Your task to perform on an android device: move an email to a new category in the gmail app Image 0: 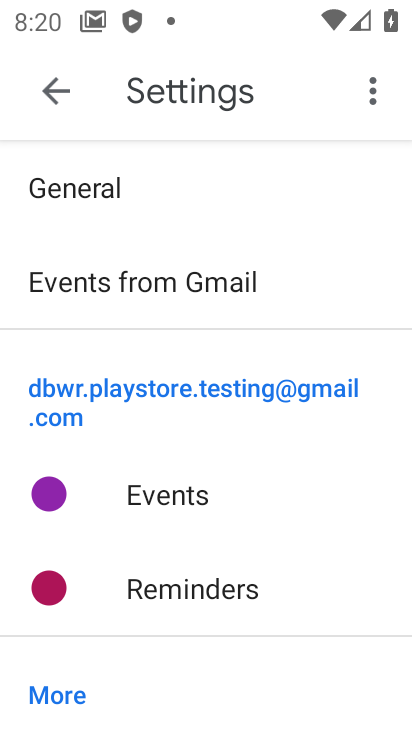
Step 0: press home button
Your task to perform on an android device: move an email to a new category in the gmail app Image 1: 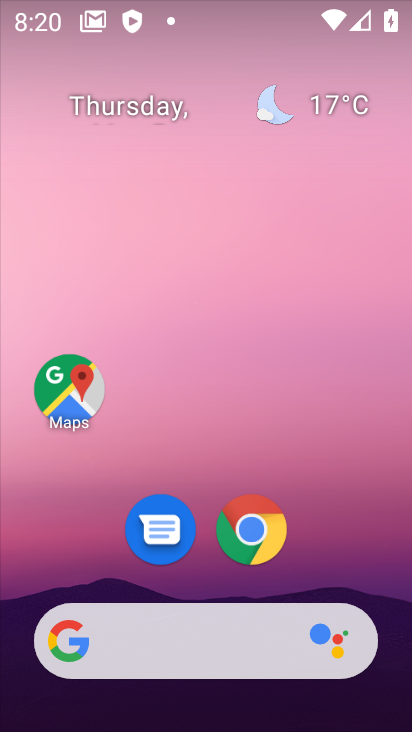
Step 1: drag from (338, 506) to (272, 18)
Your task to perform on an android device: move an email to a new category in the gmail app Image 2: 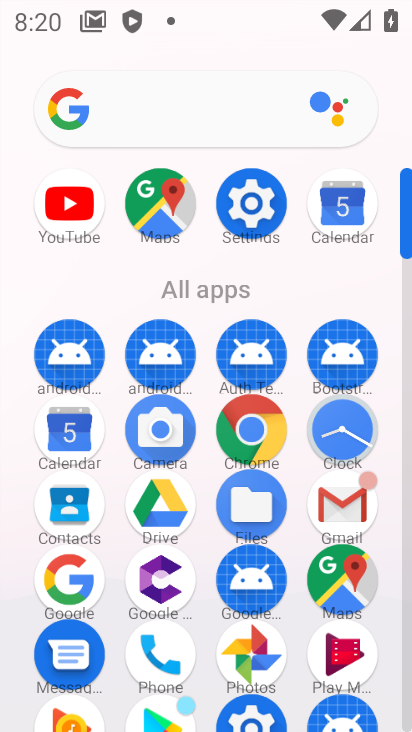
Step 2: click (332, 509)
Your task to perform on an android device: move an email to a new category in the gmail app Image 3: 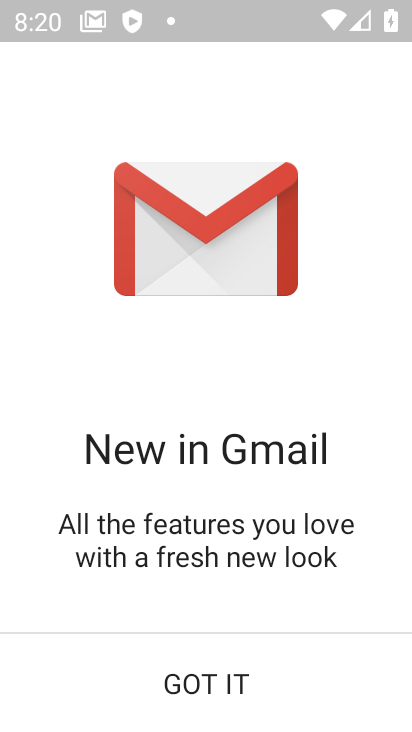
Step 3: click (204, 691)
Your task to perform on an android device: move an email to a new category in the gmail app Image 4: 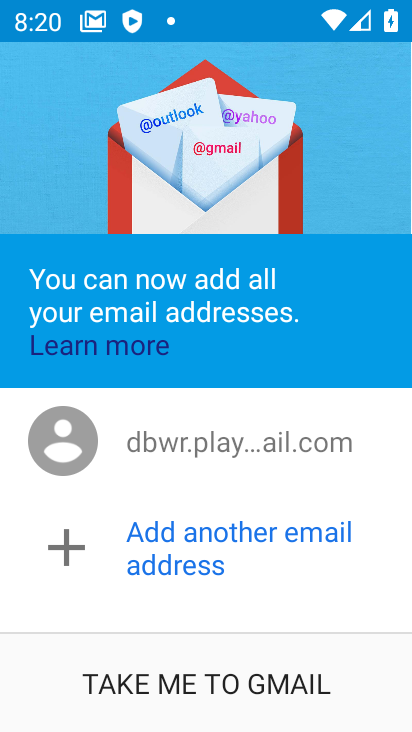
Step 4: click (198, 677)
Your task to perform on an android device: move an email to a new category in the gmail app Image 5: 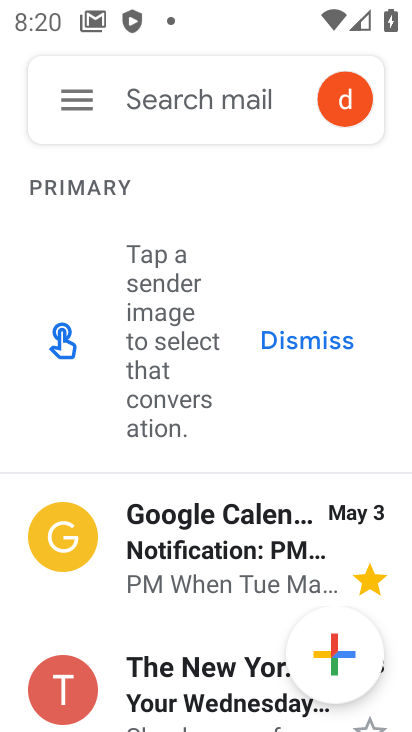
Step 5: click (190, 512)
Your task to perform on an android device: move an email to a new category in the gmail app Image 6: 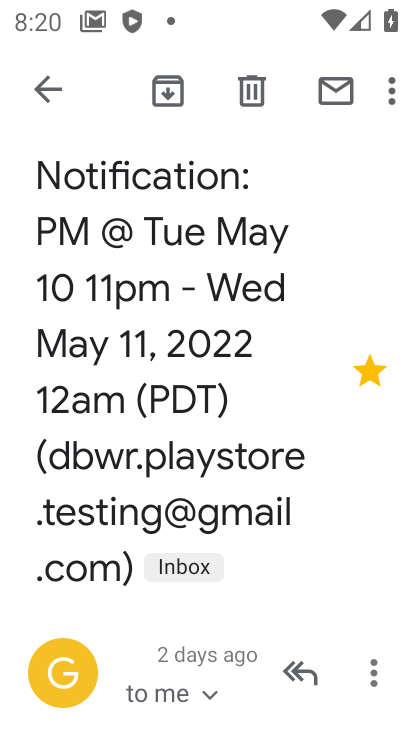
Step 6: click (394, 91)
Your task to perform on an android device: move an email to a new category in the gmail app Image 7: 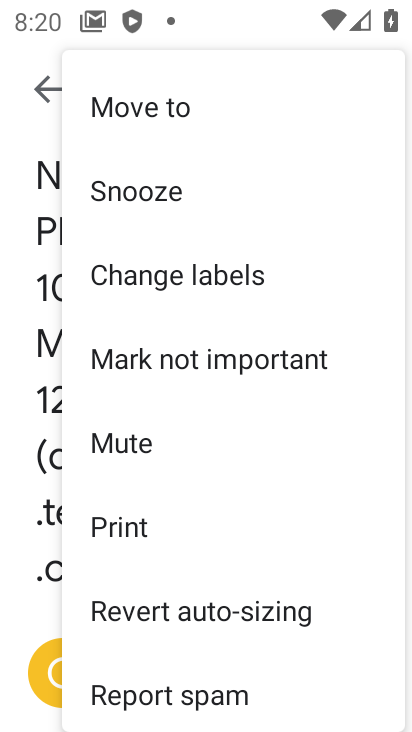
Step 7: click (165, 103)
Your task to perform on an android device: move an email to a new category in the gmail app Image 8: 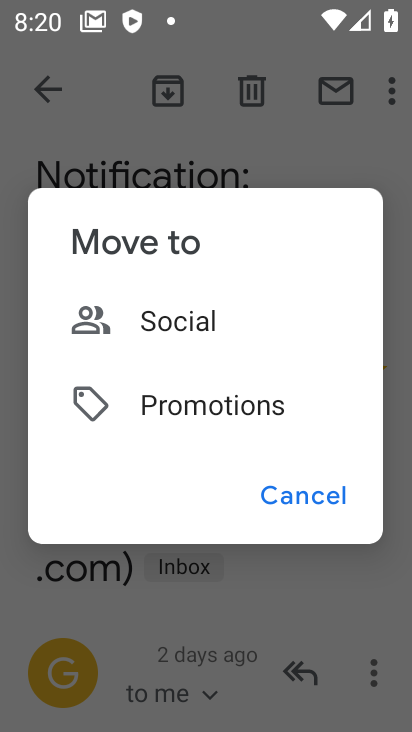
Step 8: click (182, 323)
Your task to perform on an android device: move an email to a new category in the gmail app Image 9: 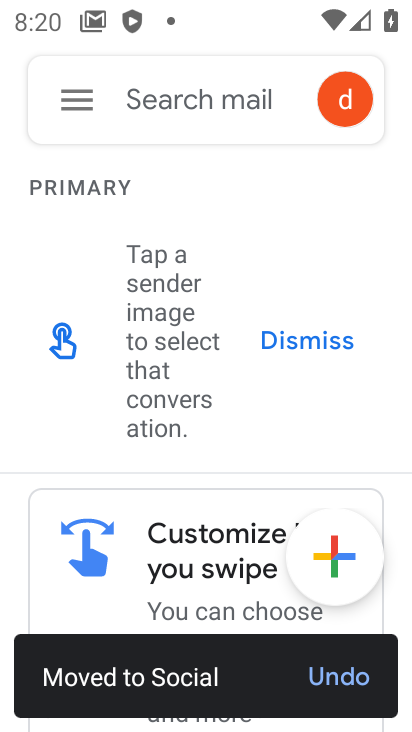
Step 9: task complete